Your task to perform on an android device: add a label to a message in the gmail app Image 0: 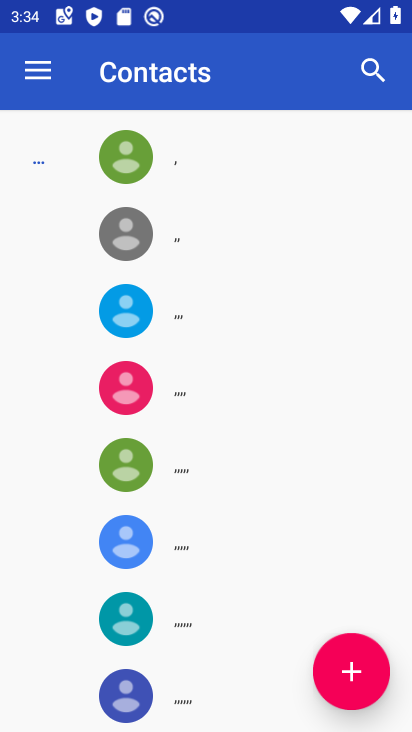
Step 0: press home button
Your task to perform on an android device: add a label to a message in the gmail app Image 1: 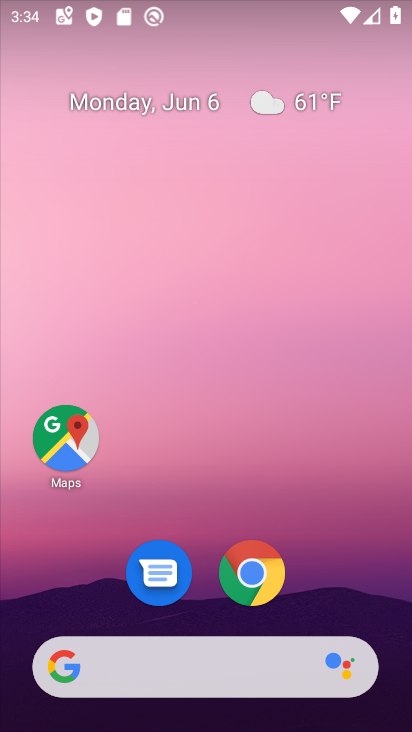
Step 1: drag from (182, 636) to (182, 217)
Your task to perform on an android device: add a label to a message in the gmail app Image 2: 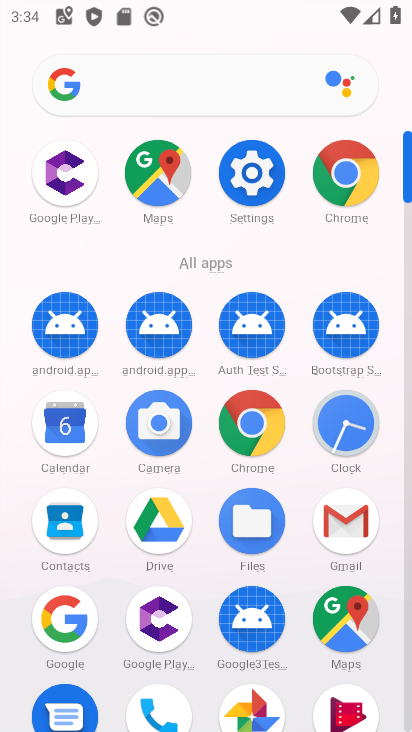
Step 2: click (357, 507)
Your task to perform on an android device: add a label to a message in the gmail app Image 3: 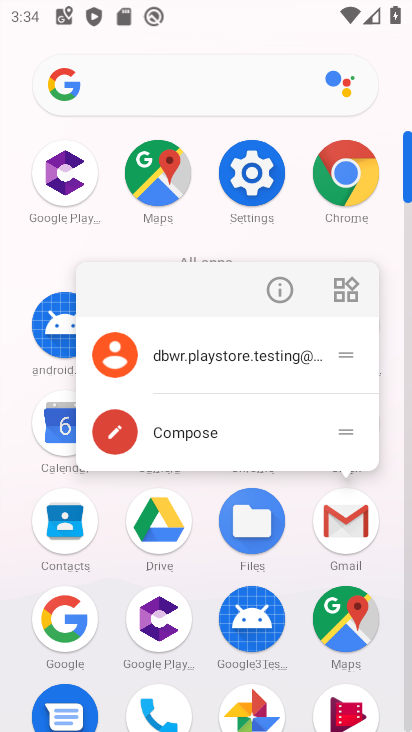
Step 3: click (358, 531)
Your task to perform on an android device: add a label to a message in the gmail app Image 4: 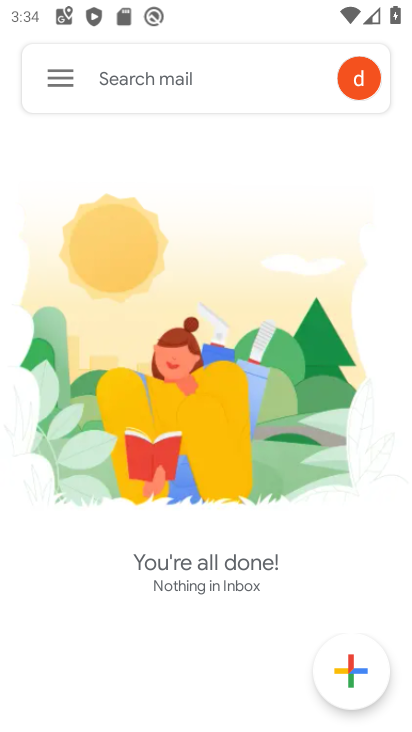
Step 4: task complete